Your task to perform on an android device: turn off picture-in-picture Image 0: 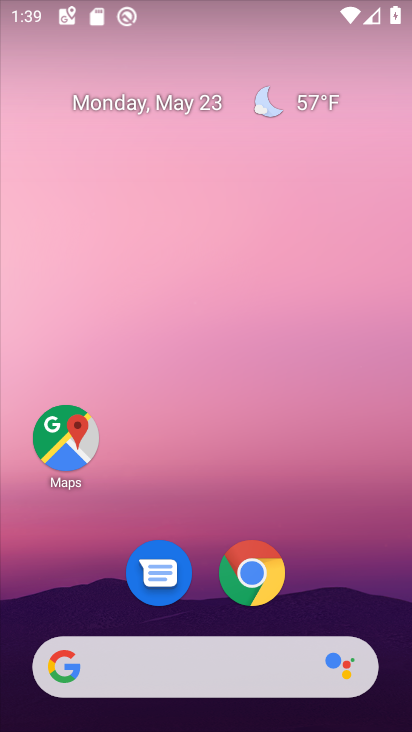
Step 0: drag from (330, 588) to (320, 77)
Your task to perform on an android device: turn off picture-in-picture Image 1: 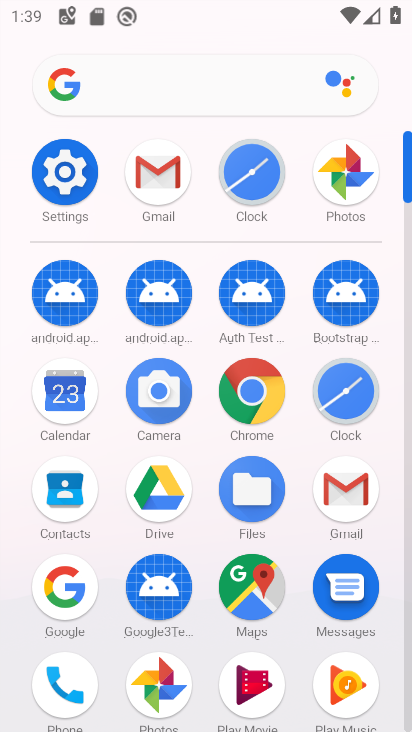
Step 1: click (71, 170)
Your task to perform on an android device: turn off picture-in-picture Image 2: 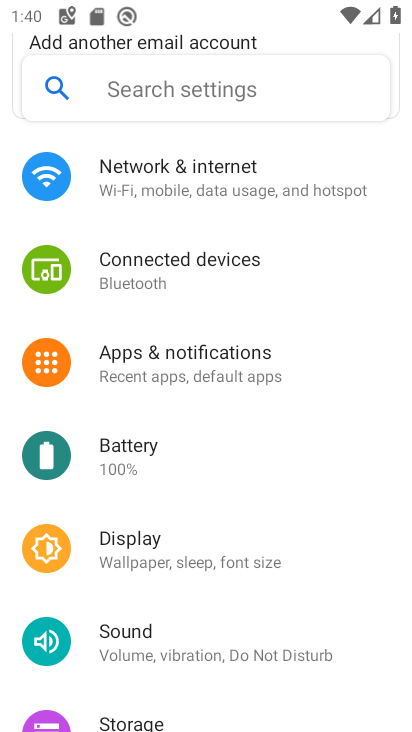
Step 2: click (244, 367)
Your task to perform on an android device: turn off picture-in-picture Image 3: 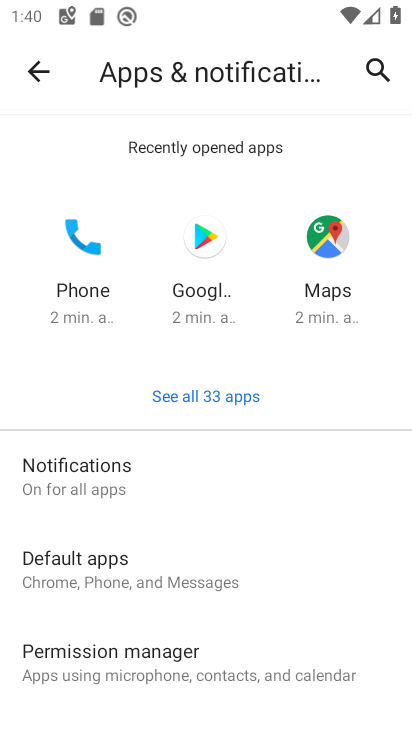
Step 3: drag from (282, 606) to (272, 279)
Your task to perform on an android device: turn off picture-in-picture Image 4: 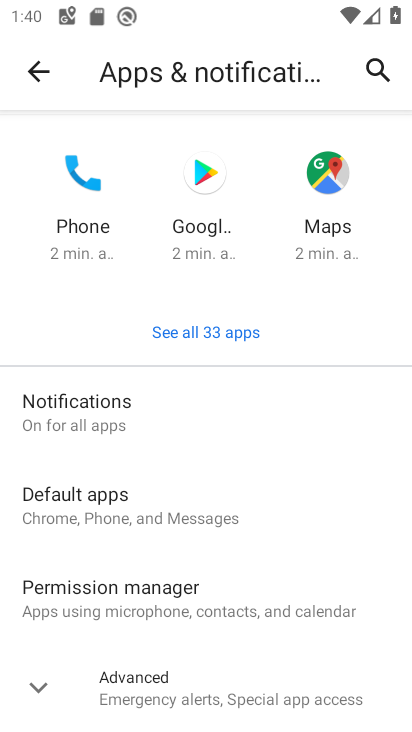
Step 4: click (204, 690)
Your task to perform on an android device: turn off picture-in-picture Image 5: 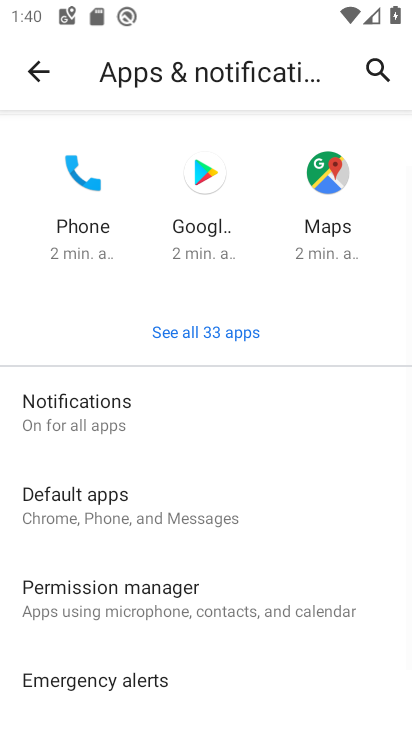
Step 5: drag from (239, 670) to (285, 262)
Your task to perform on an android device: turn off picture-in-picture Image 6: 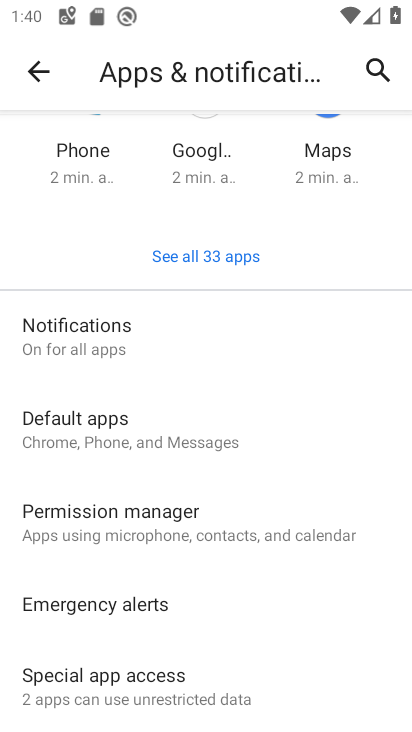
Step 6: click (179, 680)
Your task to perform on an android device: turn off picture-in-picture Image 7: 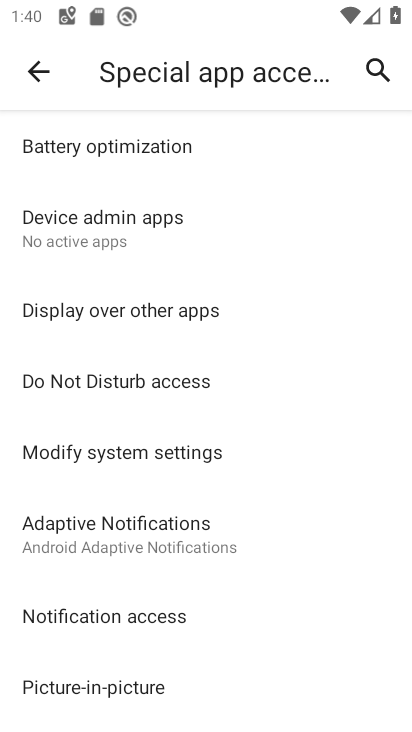
Step 7: drag from (284, 549) to (295, 253)
Your task to perform on an android device: turn off picture-in-picture Image 8: 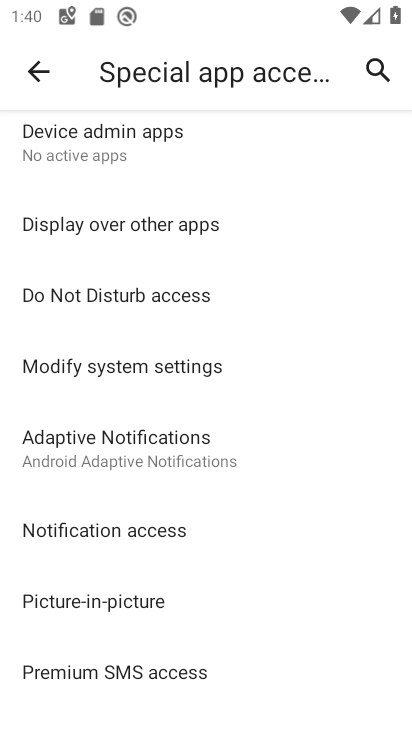
Step 8: click (146, 602)
Your task to perform on an android device: turn off picture-in-picture Image 9: 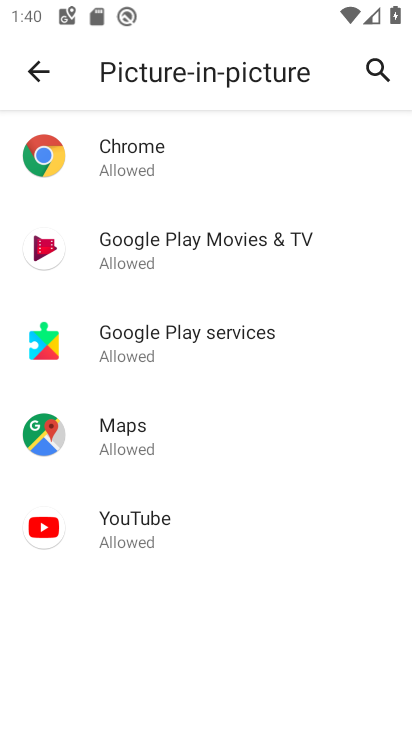
Step 9: click (185, 164)
Your task to perform on an android device: turn off picture-in-picture Image 10: 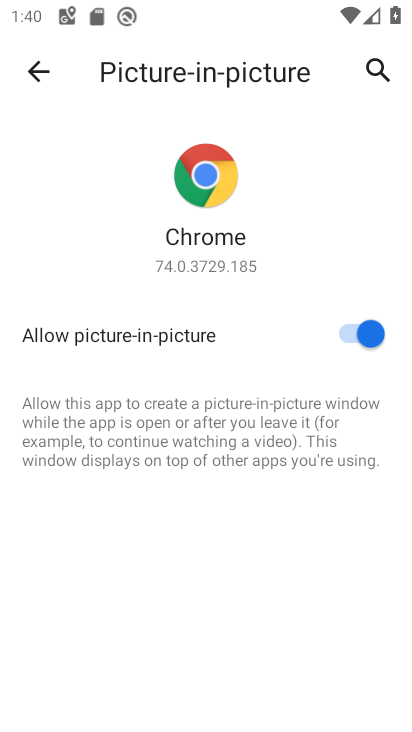
Step 10: click (350, 328)
Your task to perform on an android device: turn off picture-in-picture Image 11: 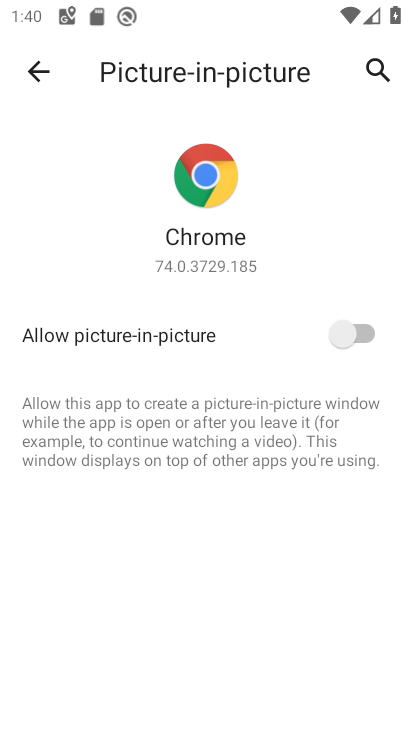
Step 11: click (43, 78)
Your task to perform on an android device: turn off picture-in-picture Image 12: 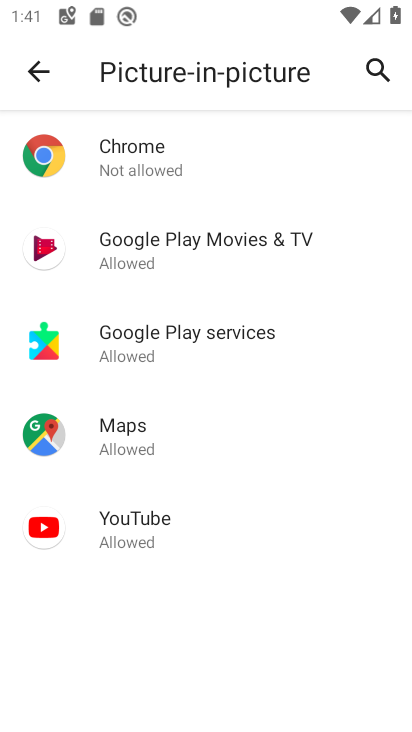
Step 12: click (186, 252)
Your task to perform on an android device: turn off picture-in-picture Image 13: 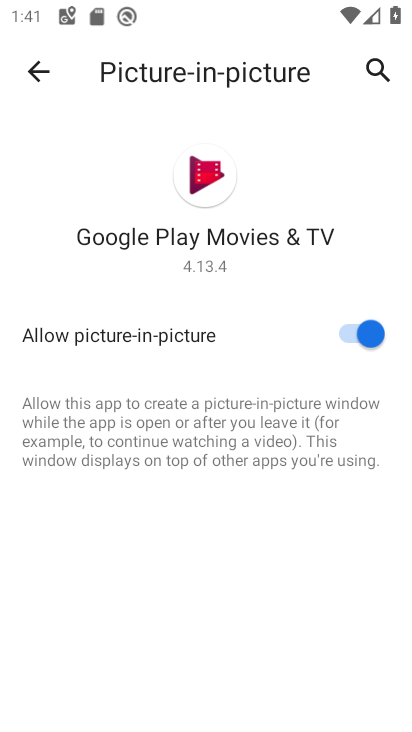
Step 13: click (353, 335)
Your task to perform on an android device: turn off picture-in-picture Image 14: 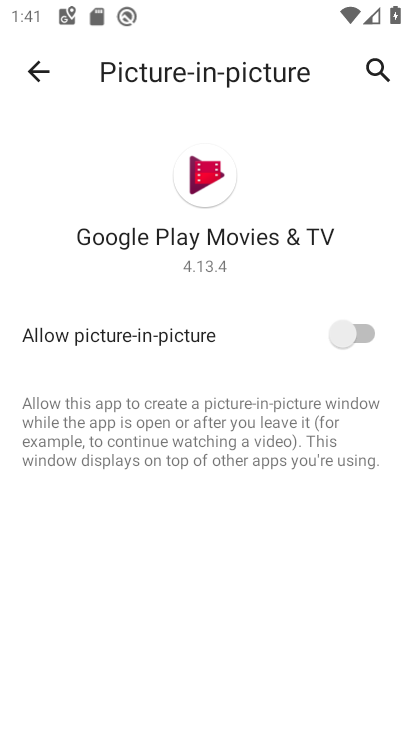
Step 14: click (34, 66)
Your task to perform on an android device: turn off picture-in-picture Image 15: 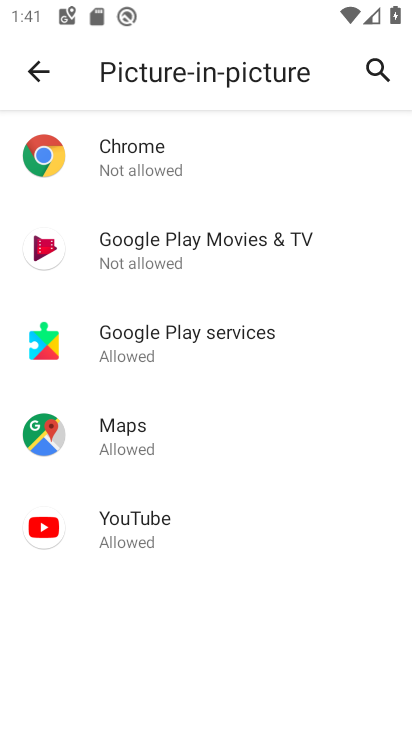
Step 15: click (185, 346)
Your task to perform on an android device: turn off picture-in-picture Image 16: 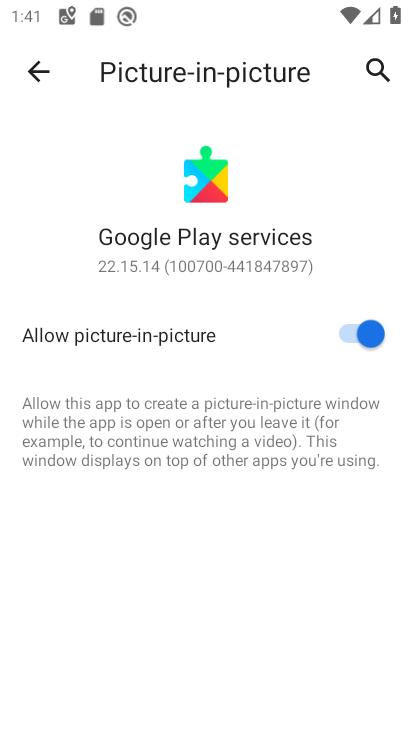
Step 16: click (353, 328)
Your task to perform on an android device: turn off picture-in-picture Image 17: 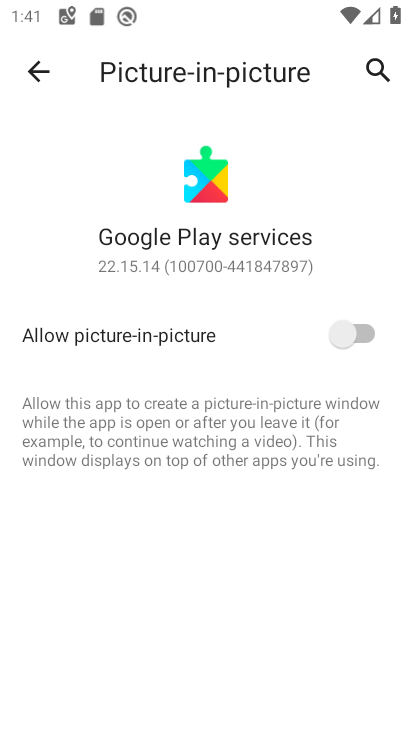
Step 17: click (38, 75)
Your task to perform on an android device: turn off picture-in-picture Image 18: 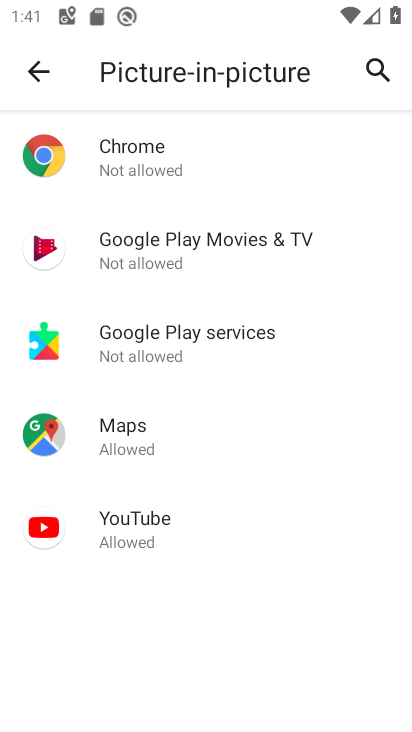
Step 18: click (141, 437)
Your task to perform on an android device: turn off picture-in-picture Image 19: 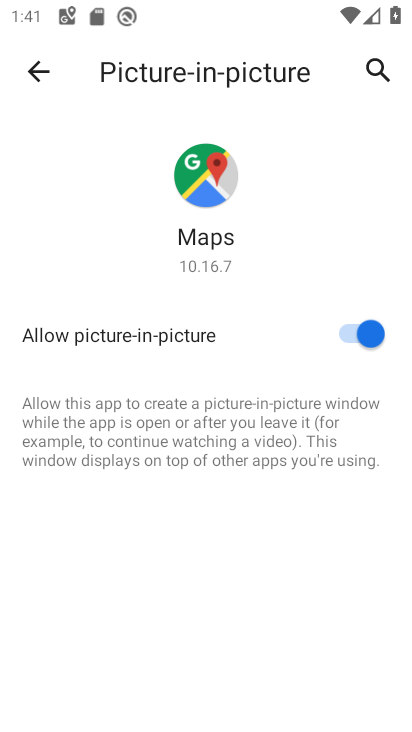
Step 19: click (355, 325)
Your task to perform on an android device: turn off picture-in-picture Image 20: 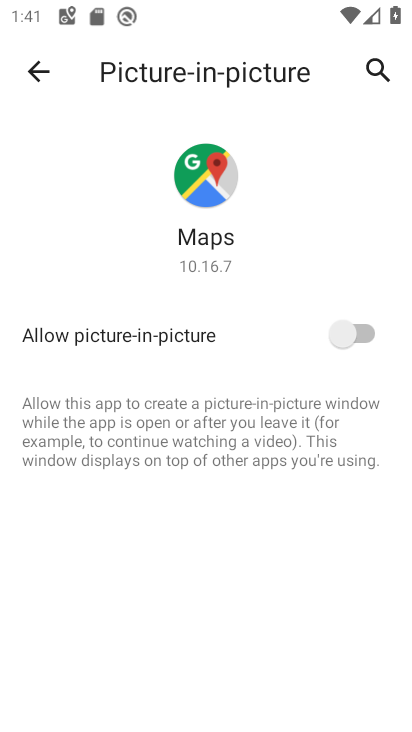
Step 20: click (39, 73)
Your task to perform on an android device: turn off picture-in-picture Image 21: 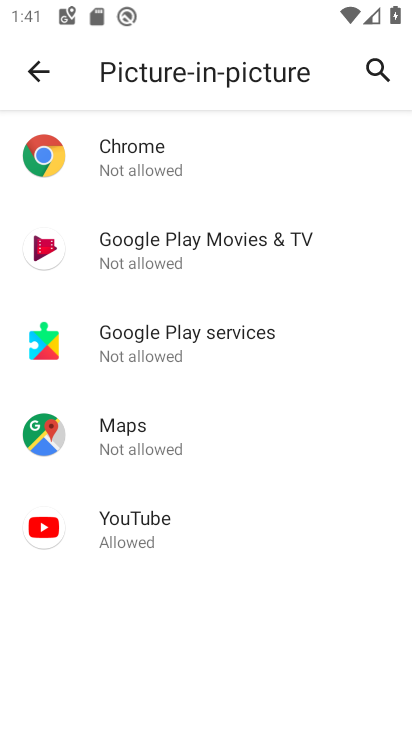
Step 21: click (159, 529)
Your task to perform on an android device: turn off picture-in-picture Image 22: 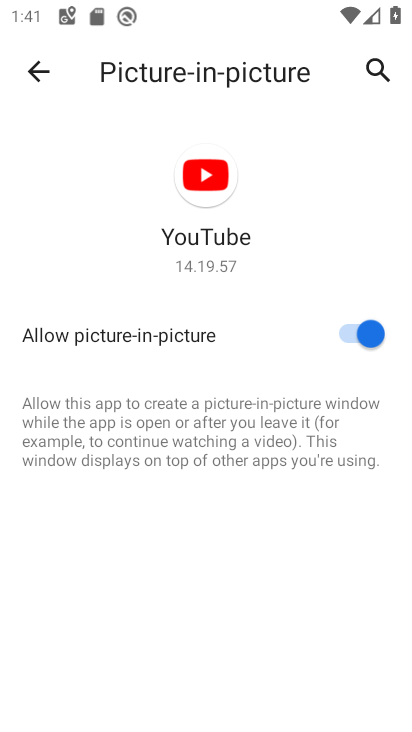
Step 22: click (350, 334)
Your task to perform on an android device: turn off picture-in-picture Image 23: 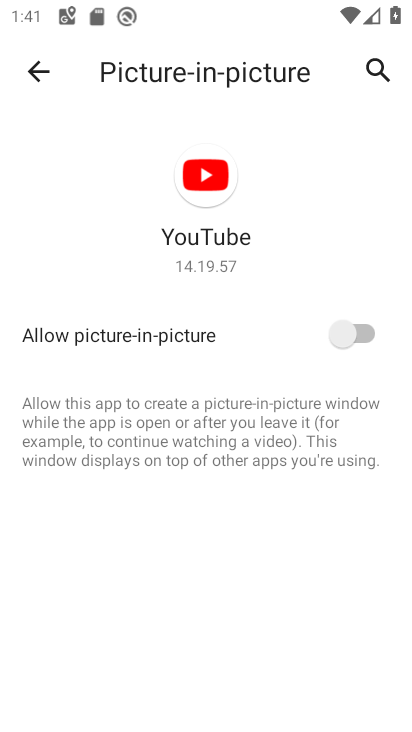
Step 23: task complete